Your task to perform on an android device: Open my contact list Image 0: 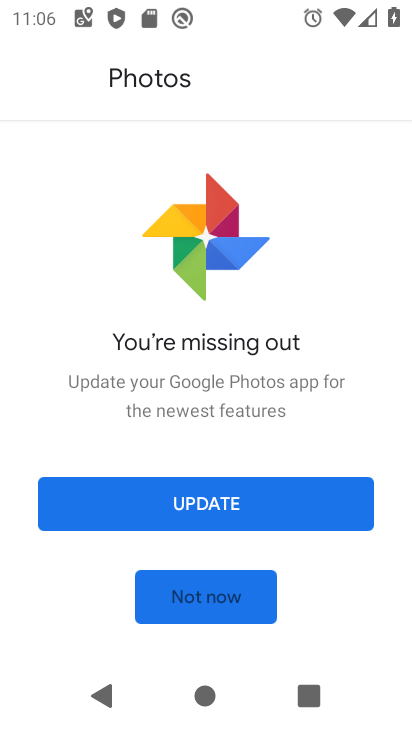
Step 0: press home button
Your task to perform on an android device: Open my contact list Image 1: 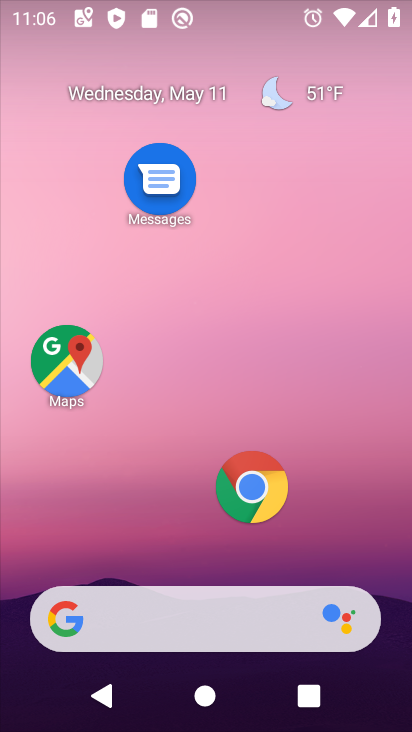
Step 1: drag from (168, 552) to (208, 122)
Your task to perform on an android device: Open my contact list Image 2: 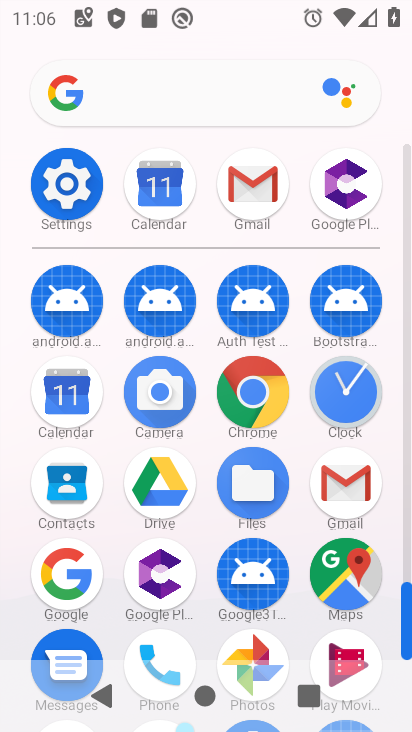
Step 2: click (54, 490)
Your task to perform on an android device: Open my contact list Image 3: 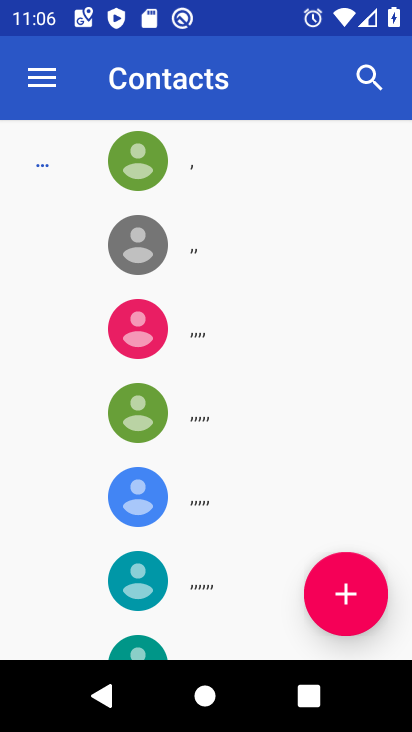
Step 3: click (324, 580)
Your task to perform on an android device: Open my contact list Image 4: 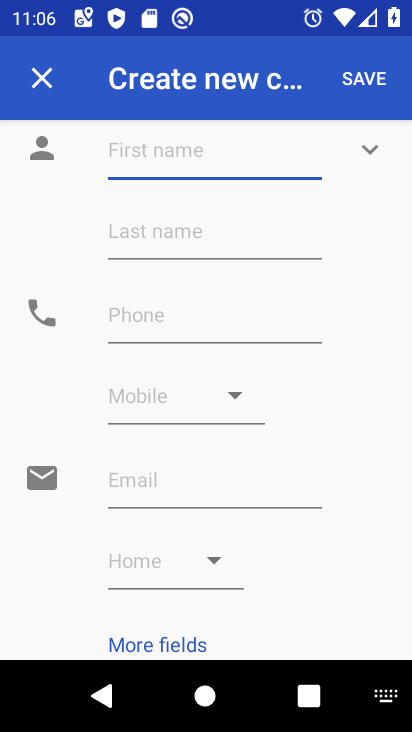
Step 4: task complete